Your task to perform on an android device: empty trash in google photos Image 0: 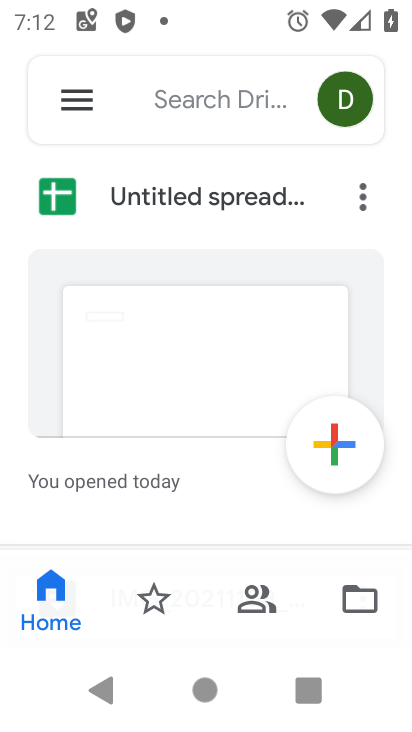
Step 0: press home button
Your task to perform on an android device: empty trash in google photos Image 1: 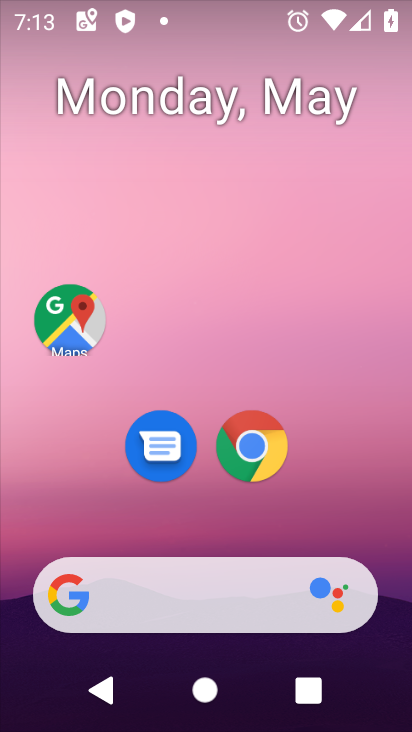
Step 1: drag from (337, 467) to (237, 164)
Your task to perform on an android device: empty trash in google photos Image 2: 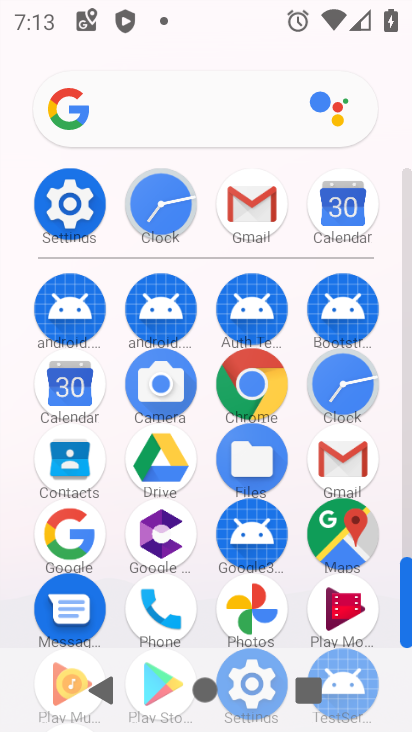
Step 2: click (254, 599)
Your task to perform on an android device: empty trash in google photos Image 3: 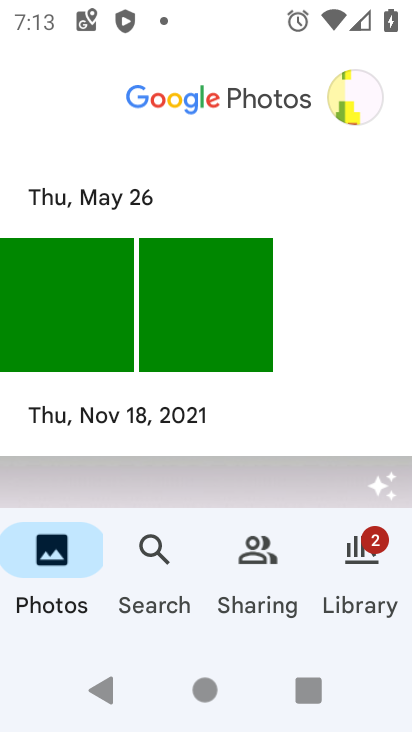
Step 3: click (366, 547)
Your task to perform on an android device: empty trash in google photos Image 4: 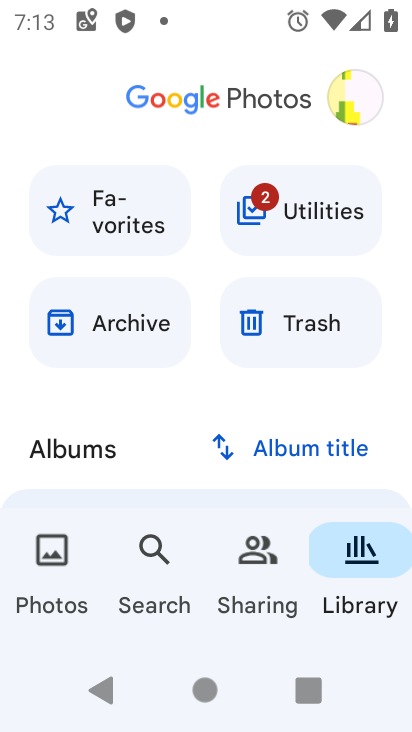
Step 4: click (278, 321)
Your task to perform on an android device: empty trash in google photos Image 5: 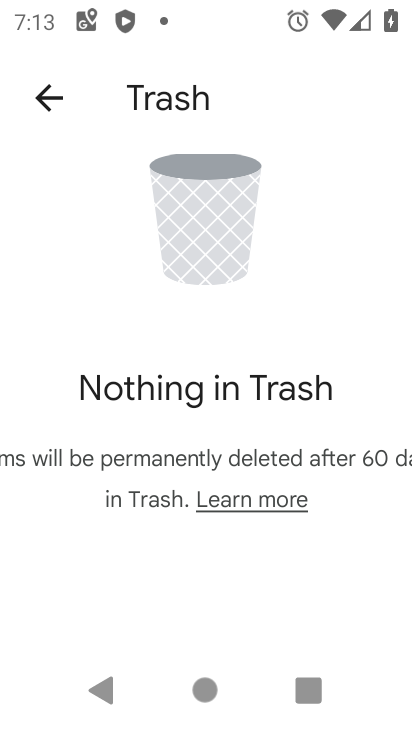
Step 5: task complete